Your task to perform on an android device: delete browsing data in the chrome app Image 0: 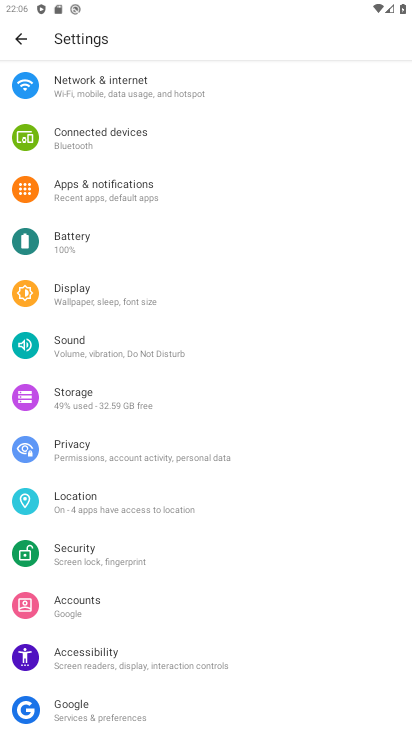
Step 0: press home button
Your task to perform on an android device: delete browsing data in the chrome app Image 1: 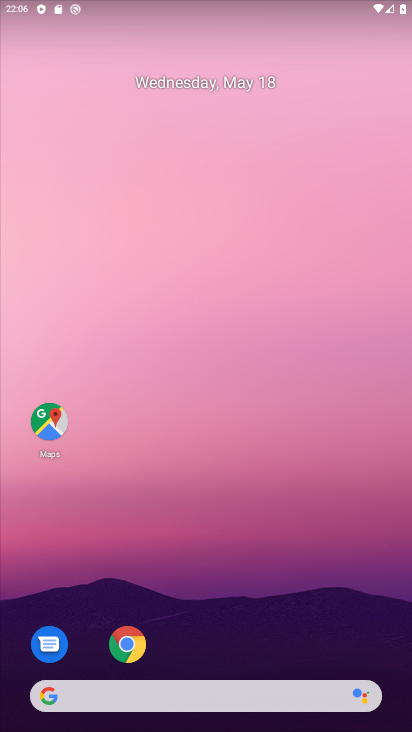
Step 1: click (123, 627)
Your task to perform on an android device: delete browsing data in the chrome app Image 2: 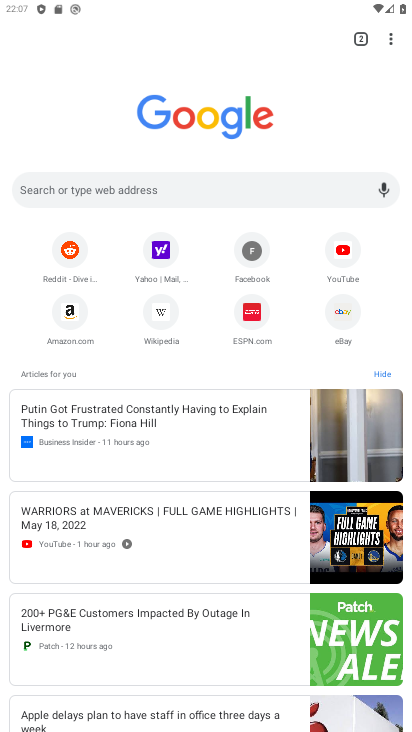
Step 2: drag from (395, 37) to (244, 227)
Your task to perform on an android device: delete browsing data in the chrome app Image 3: 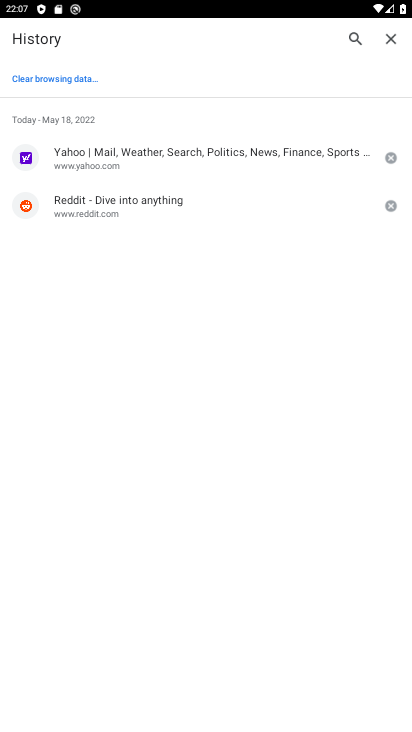
Step 3: click (65, 77)
Your task to perform on an android device: delete browsing data in the chrome app Image 4: 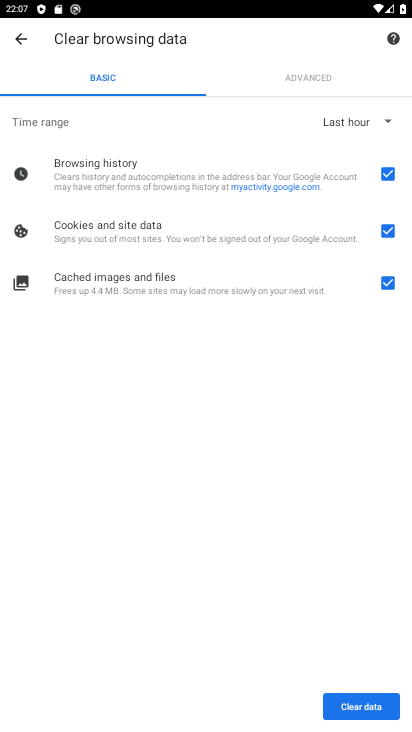
Step 4: click (357, 125)
Your task to perform on an android device: delete browsing data in the chrome app Image 5: 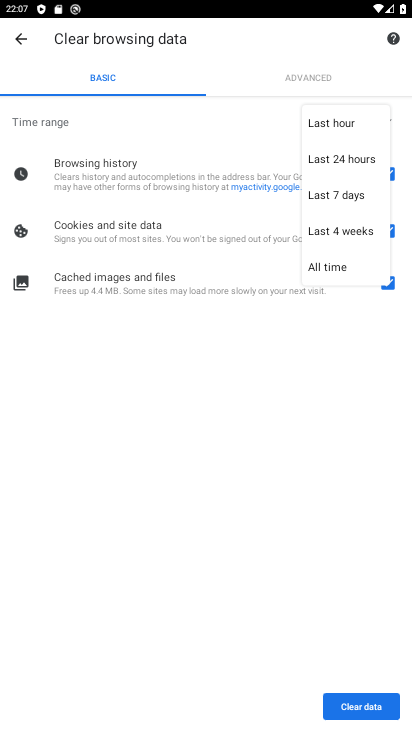
Step 5: click (337, 261)
Your task to perform on an android device: delete browsing data in the chrome app Image 6: 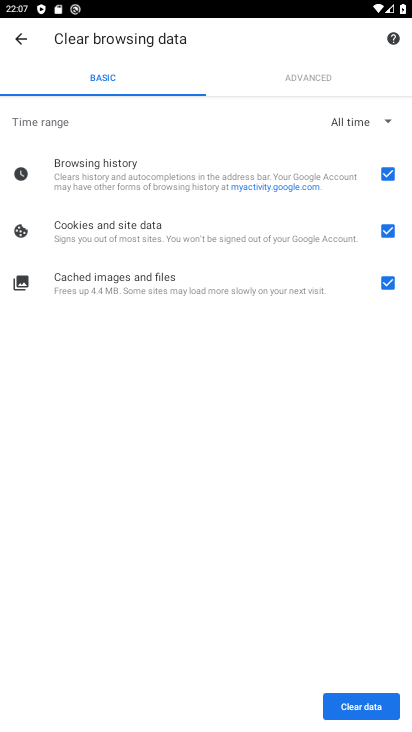
Step 6: click (356, 714)
Your task to perform on an android device: delete browsing data in the chrome app Image 7: 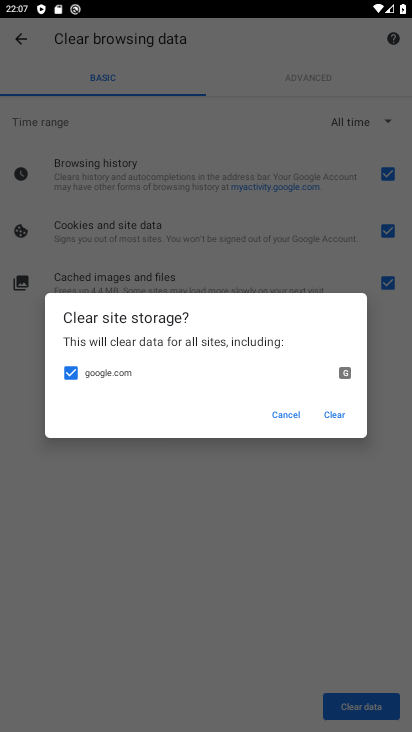
Step 7: click (336, 412)
Your task to perform on an android device: delete browsing data in the chrome app Image 8: 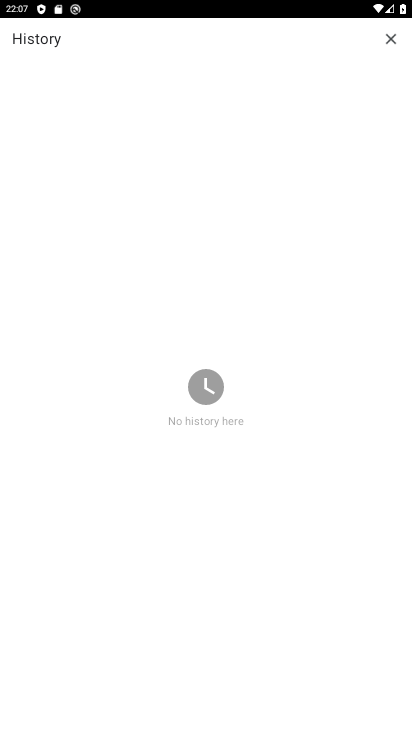
Step 8: task complete